Your task to perform on an android device: turn off location Image 0: 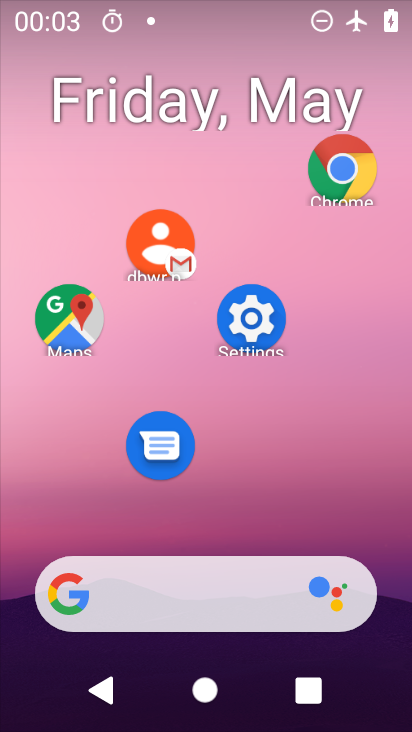
Step 0: drag from (261, 527) to (243, 344)
Your task to perform on an android device: turn off location Image 1: 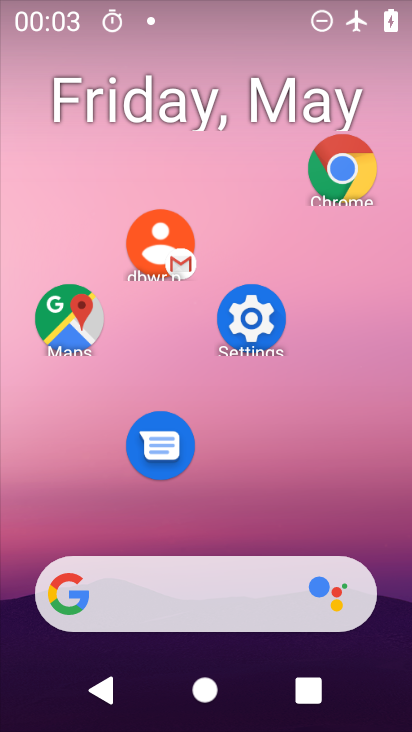
Step 1: drag from (226, 516) to (280, 11)
Your task to perform on an android device: turn off location Image 2: 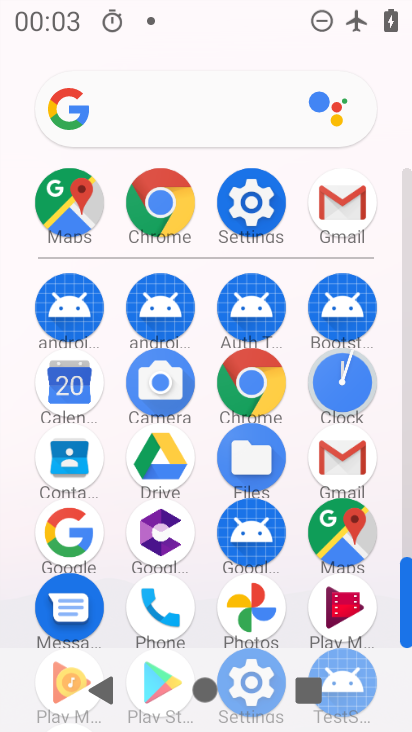
Step 2: click (263, 222)
Your task to perform on an android device: turn off location Image 3: 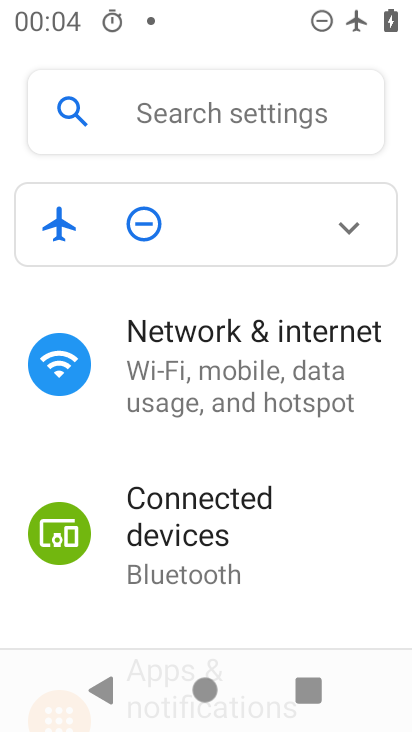
Step 3: drag from (193, 562) to (208, 88)
Your task to perform on an android device: turn off location Image 4: 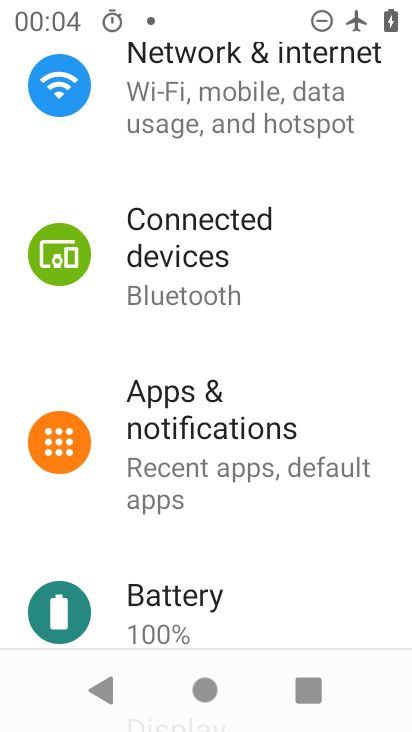
Step 4: drag from (199, 542) to (321, 97)
Your task to perform on an android device: turn off location Image 5: 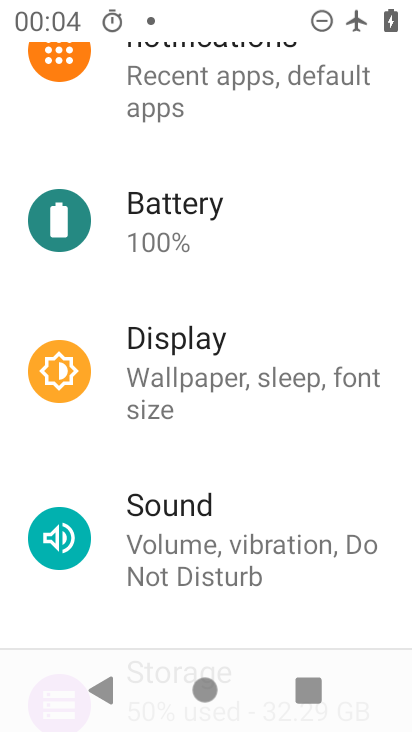
Step 5: drag from (198, 560) to (256, 111)
Your task to perform on an android device: turn off location Image 6: 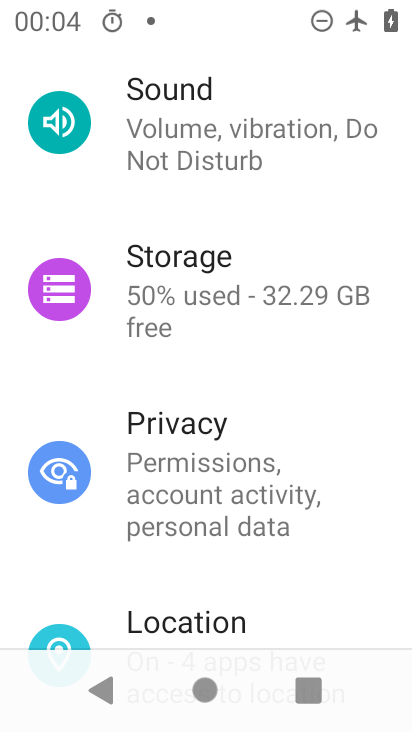
Step 6: click (201, 592)
Your task to perform on an android device: turn off location Image 7: 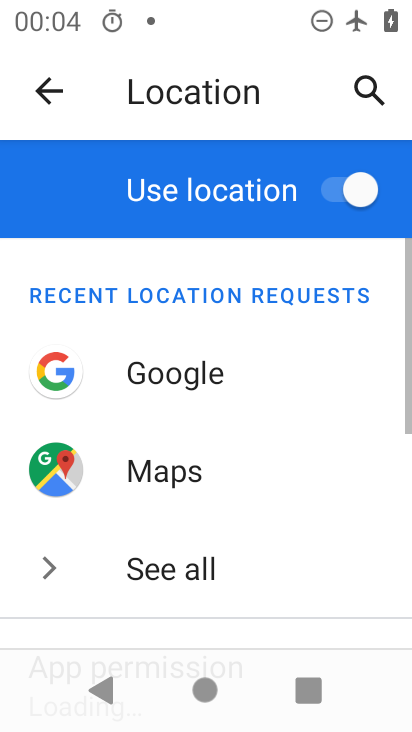
Step 7: drag from (205, 538) to (321, 118)
Your task to perform on an android device: turn off location Image 8: 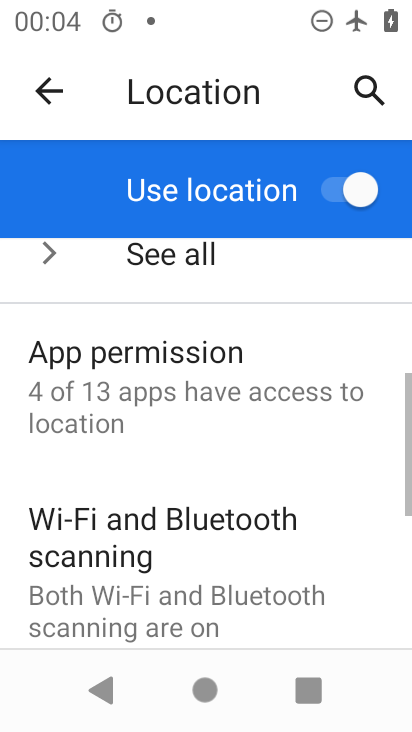
Step 8: click (349, 184)
Your task to perform on an android device: turn off location Image 9: 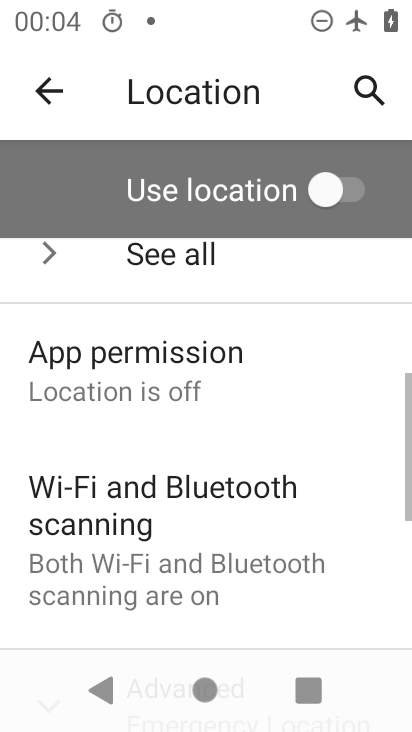
Step 9: task complete